Your task to perform on an android device: open a bookmark in the chrome app Image 0: 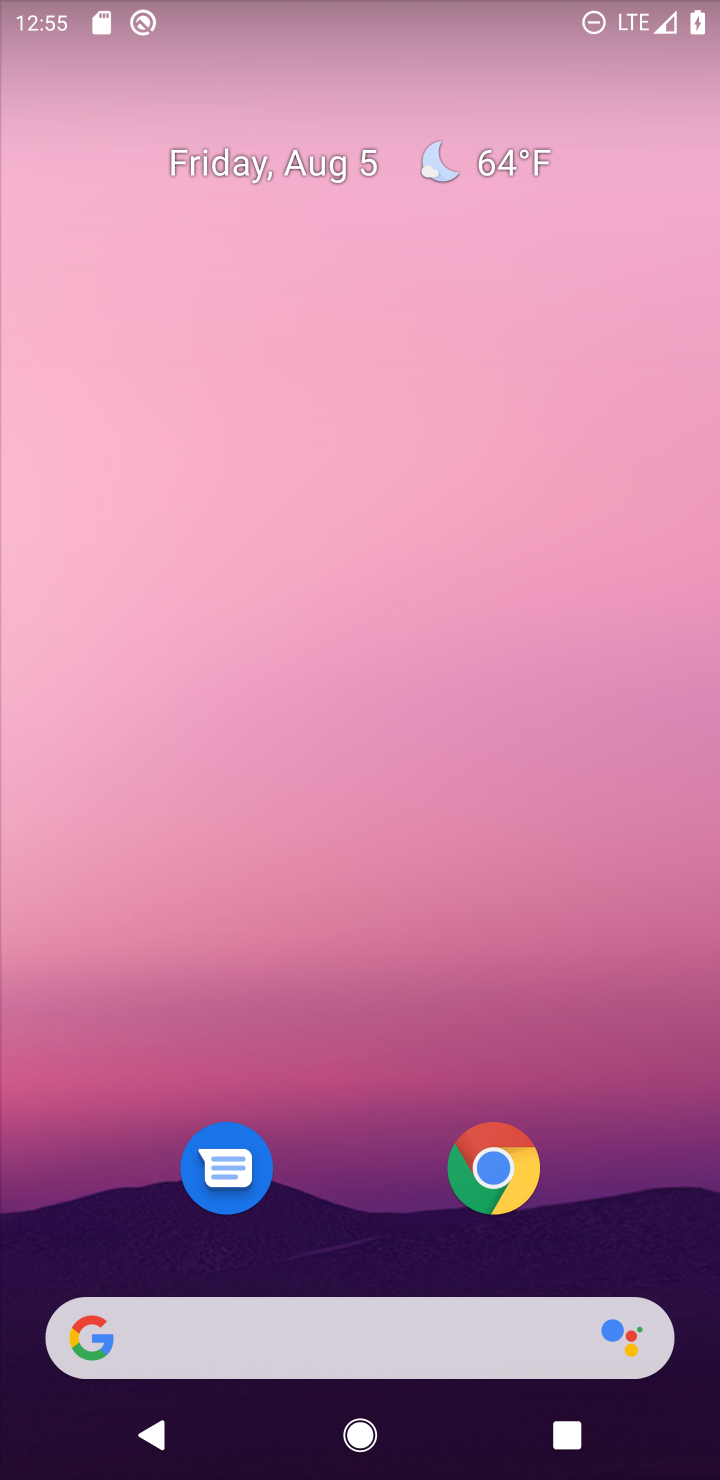
Step 0: drag from (629, 1234) to (396, 6)
Your task to perform on an android device: open a bookmark in the chrome app Image 1: 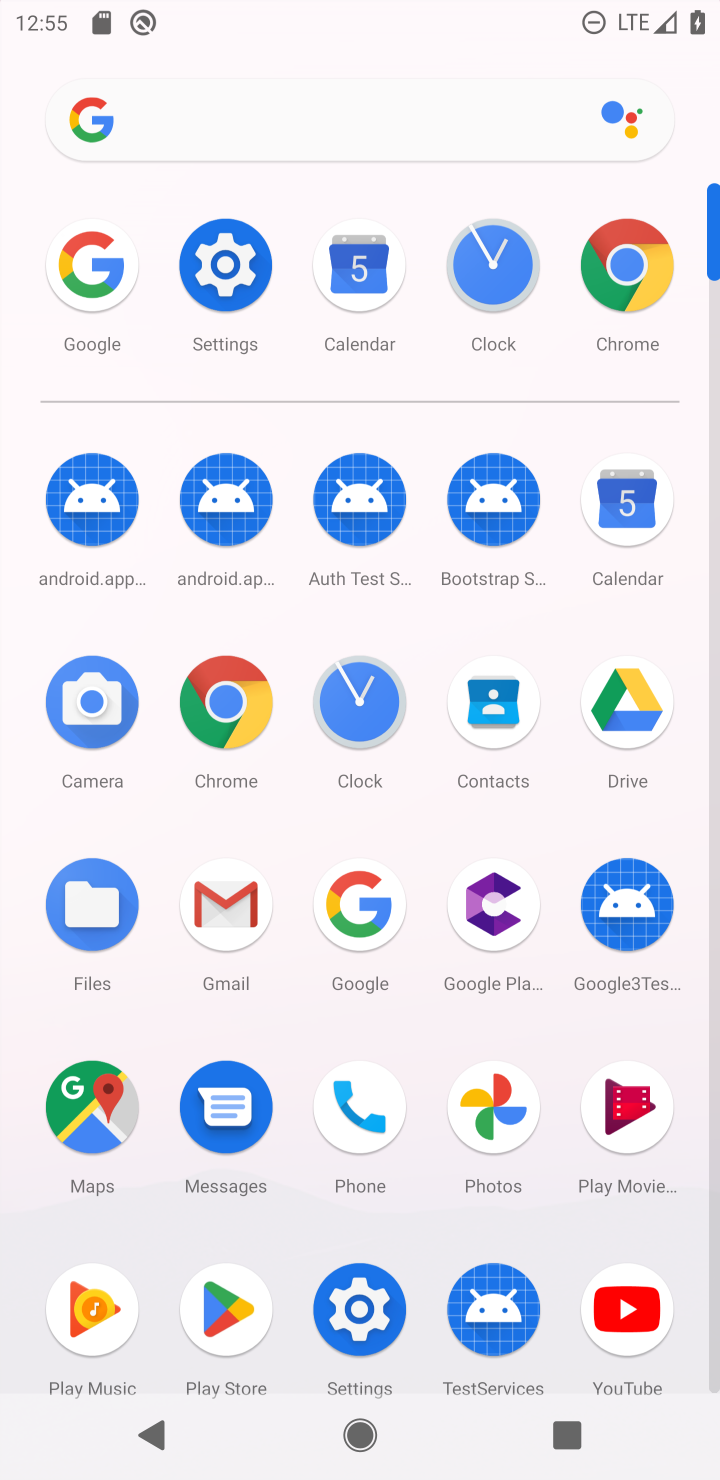
Step 1: click (624, 285)
Your task to perform on an android device: open a bookmark in the chrome app Image 2: 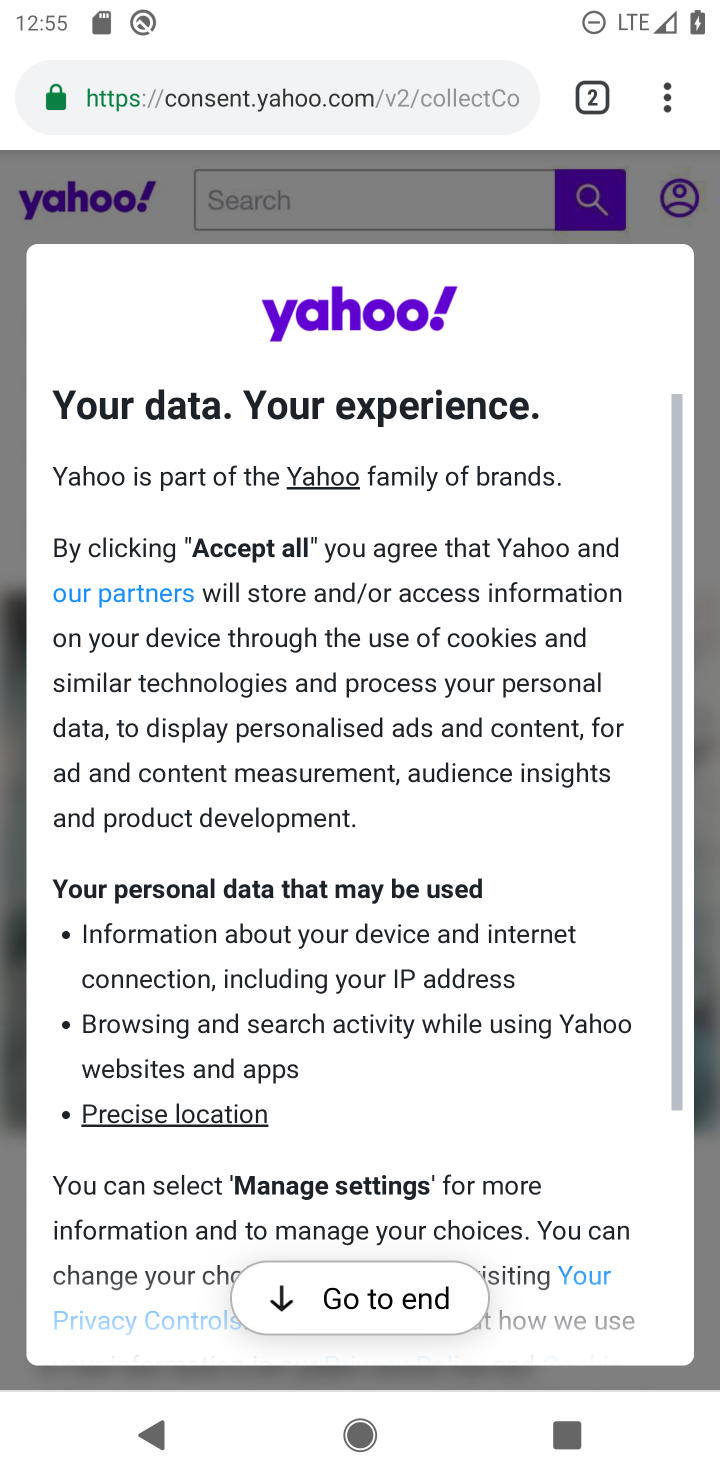
Step 2: press back button
Your task to perform on an android device: open a bookmark in the chrome app Image 3: 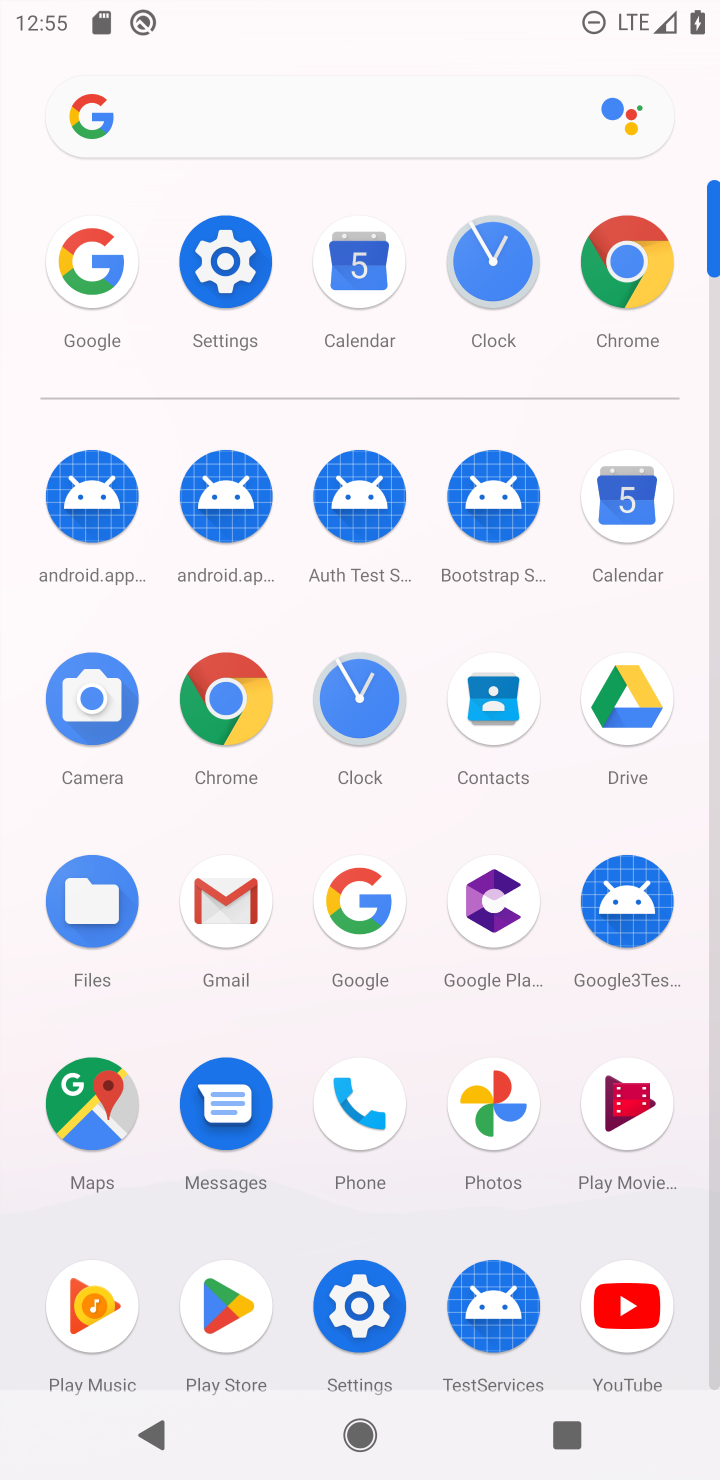
Step 3: click (622, 224)
Your task to perform on an android device: open a bookmark in the chrome app Image 4: 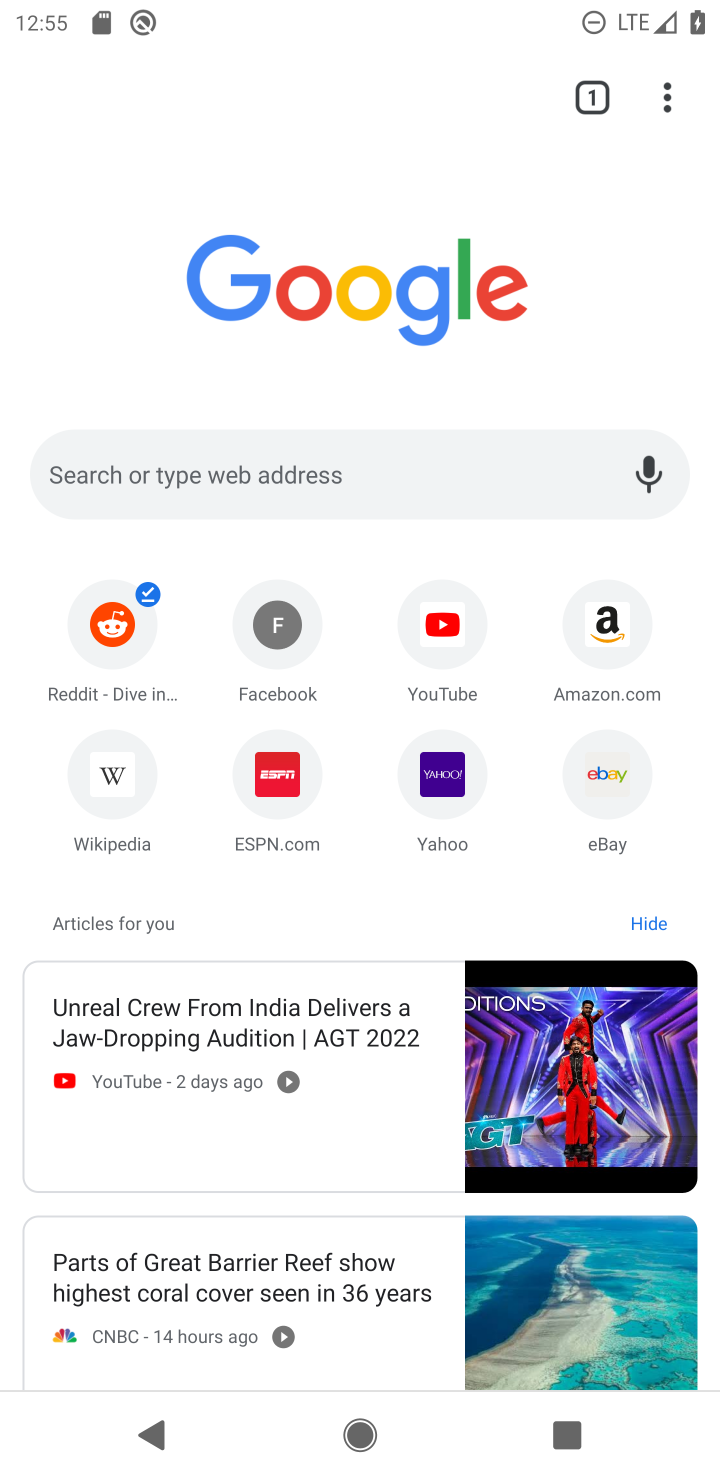
Step 4: click (671, 87)
Your task to perform on an android device: open a bookmark in the chrome app Image 5: 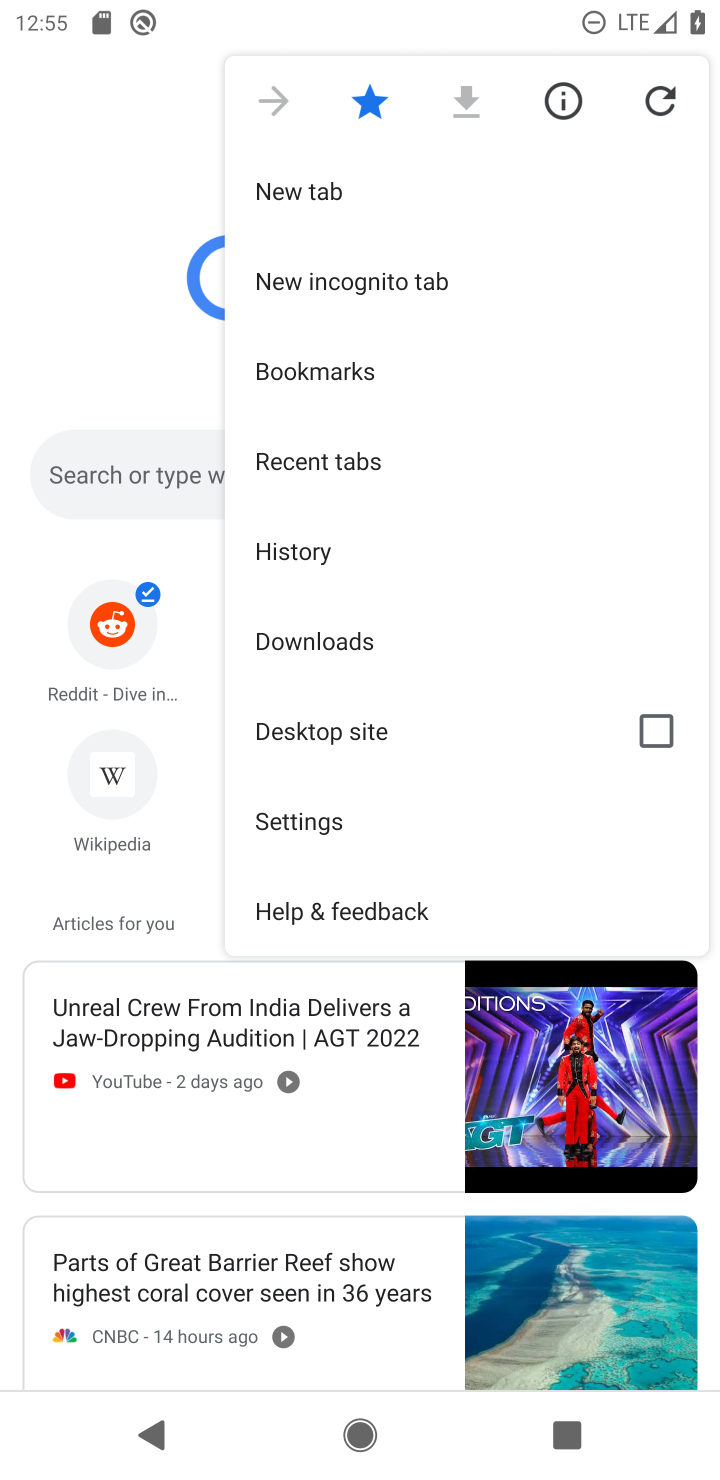
Step 5: click (339, 361)
Your task to perform on an android device: open a bookmark in the chrome app Image 6: 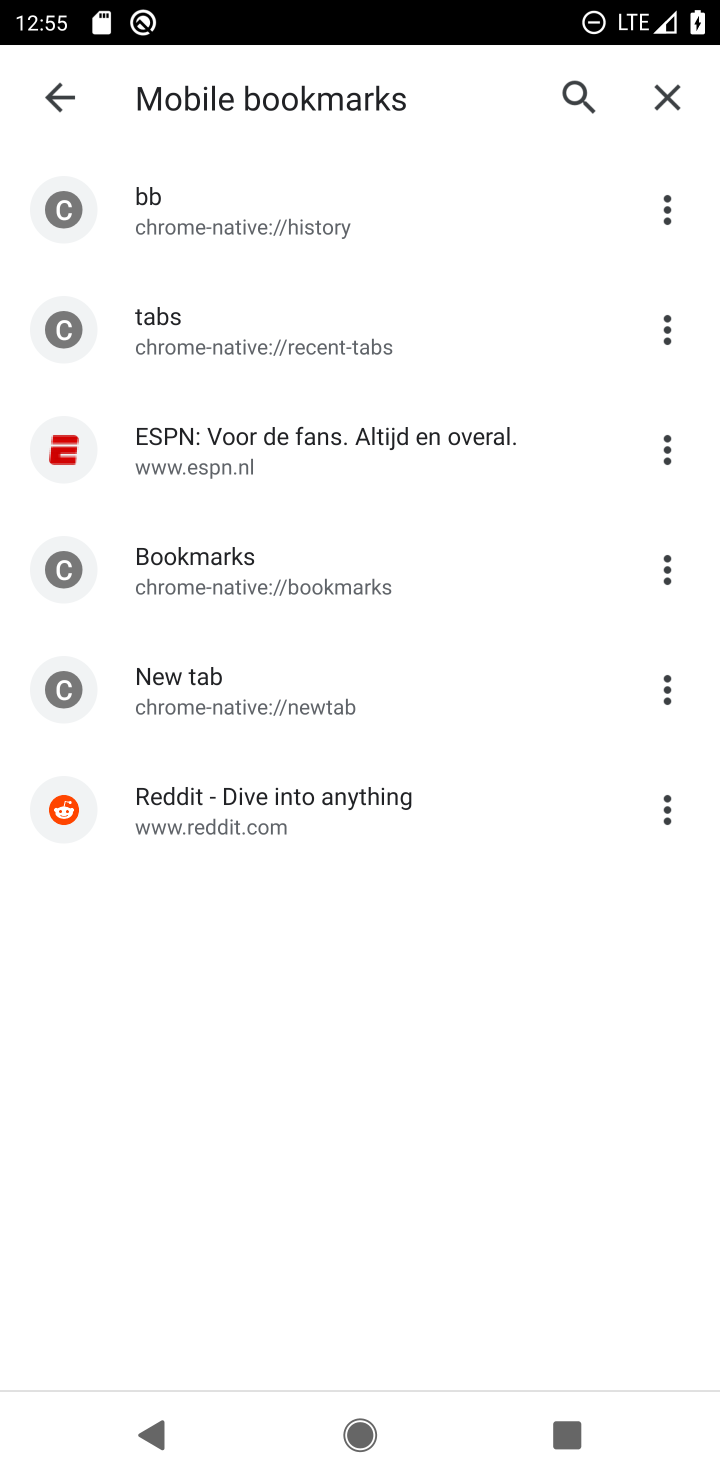
Step 6: task complete